Your task to perform on an android device: open device folders in google photos Image 0: 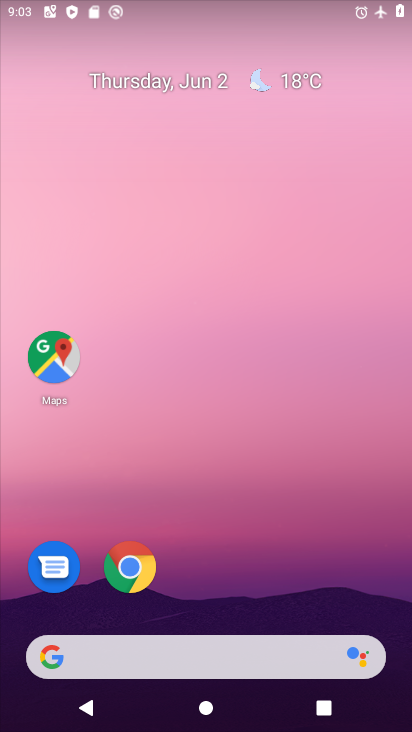
Step 0: drag from (255, 494) to (276, 188)
Your task to perform on an android device: open device folders in google photos Image 1: 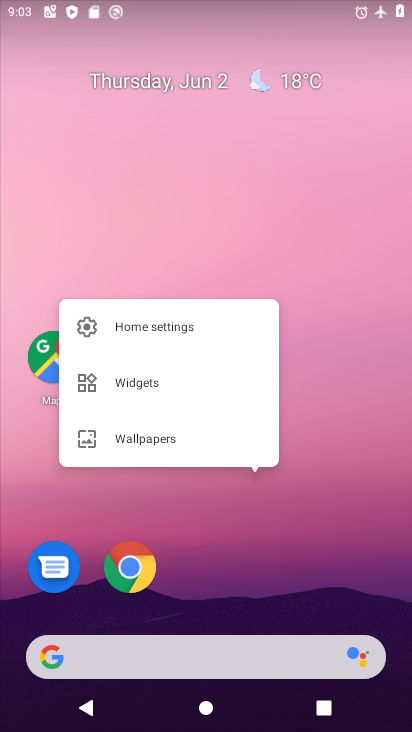
Step 1: click (226, 583)
Your task to perform on an android device: open device folders in google photos Image 2: 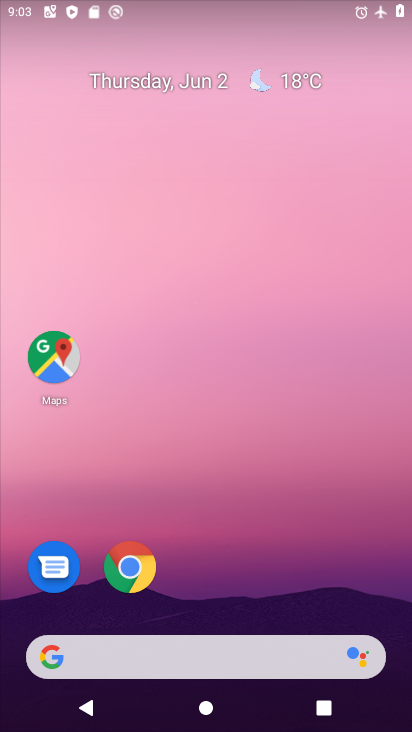
Step 2: drag from (231, 588) to (394, 6)
Your task to perform on an android device: open device folders in google photos Image 3: 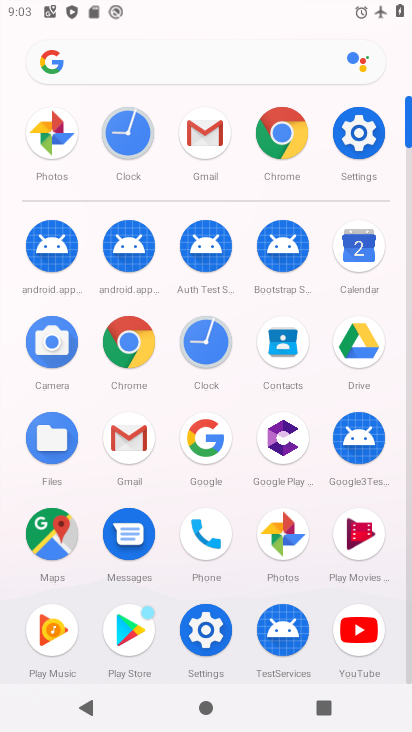
Step 3: click (286, 528)
Your task to perform on an android device: open device folders in google photos Image 4: 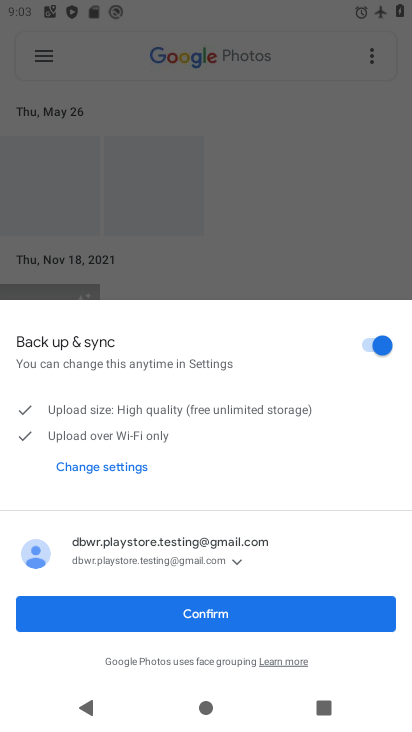
Step 4: click (234, 616)
Your task to perform on an android device: open device folders in google photos Image 5: 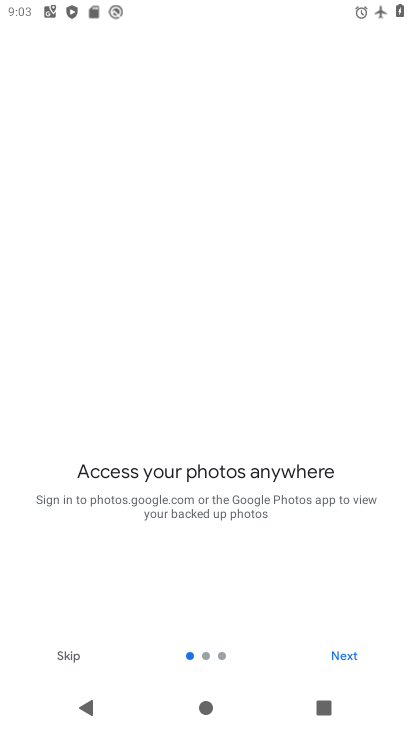
Step 5: click (58, 654)
Your task to perform on an android device: open device folders in google photos Image 6: 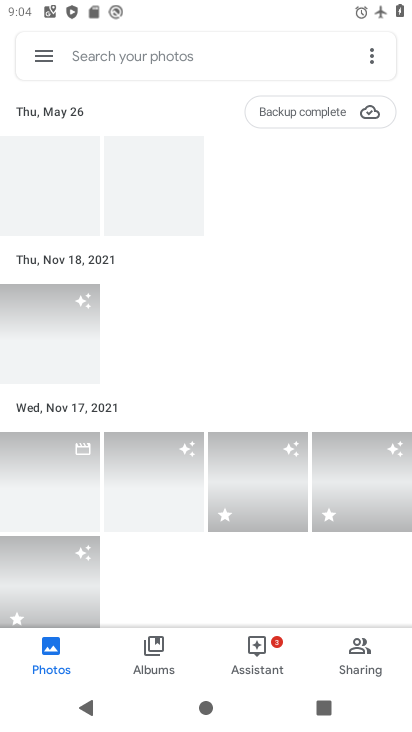
Step 6: click (33, 36)
Your task to perform on an android device: open device folders in google photos Image 7: 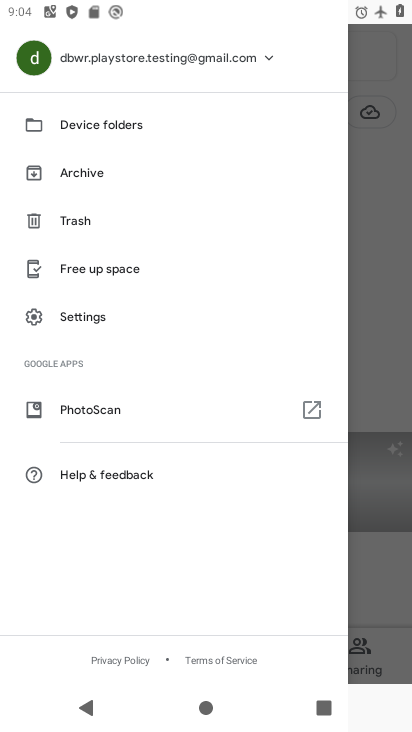
Step 7: click (103, 124)
Your task to perform on an android device: open device folders in google photos Image 8: 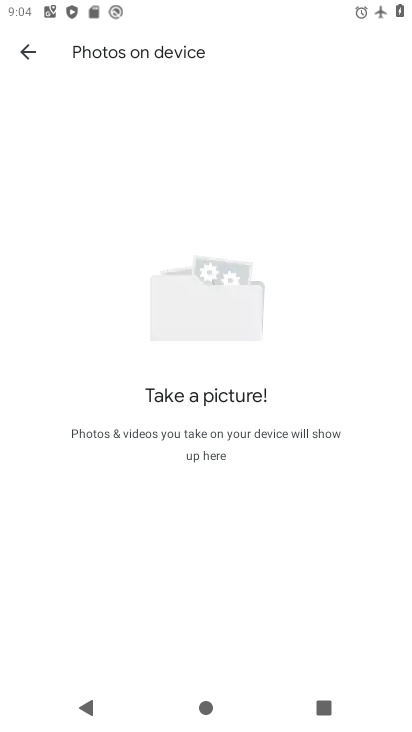
Step 8: task complete